Your task to perform on an android device: set an alarm Image 0: 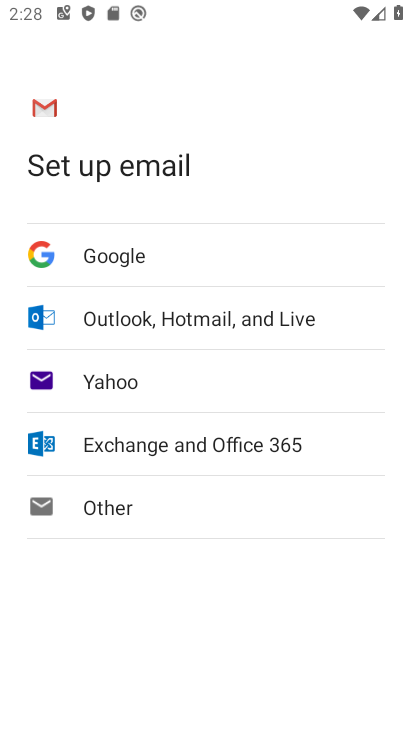
Step 0: press back button
Your task to perform on an android device: set an alarm Image 1: 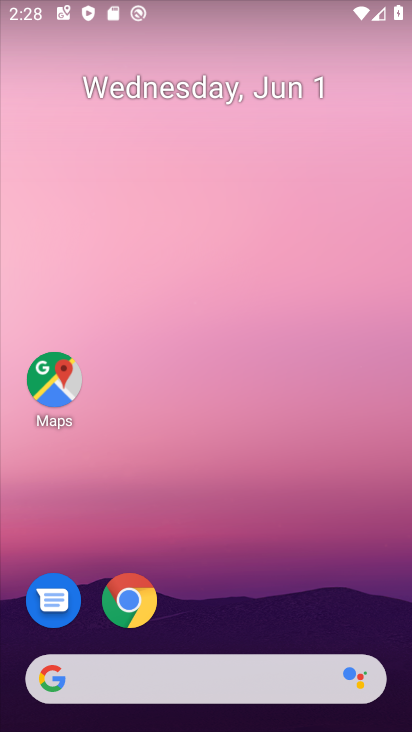
Step 1: drag from (248, 585) to (165, 24)
Your task to perform on an android device: set an alarm Image 2: 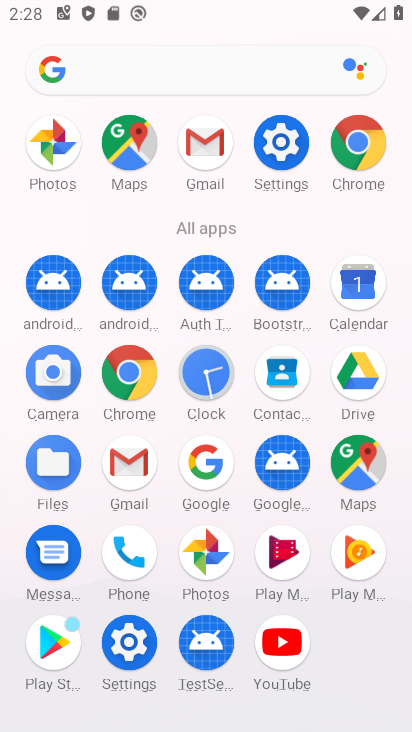
Step 2: drag from (3, 523) to (10, 162)
Your task to perform on an android device: set an alarm Image 3: 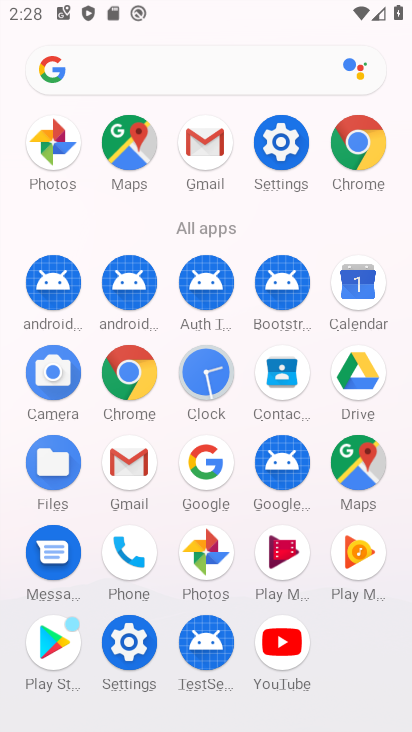
Step 3: click (201, 371)
Your task to perform on an android device: set an alarm Image 4: 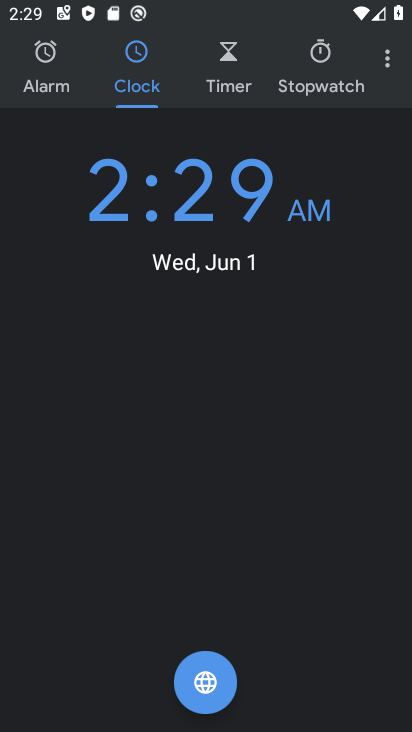
Step 4: click (45, 47)
Your task to perform on an android device: set an alarm Image 5: 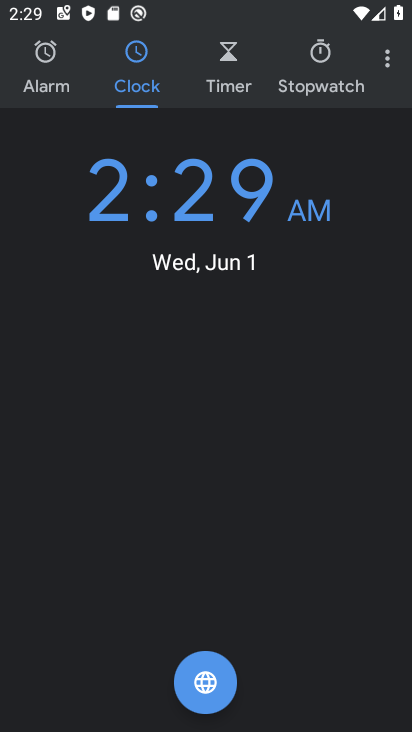
Step 5: click (51, 57)
Your task to perform on an android device: set an alarm Image 6: 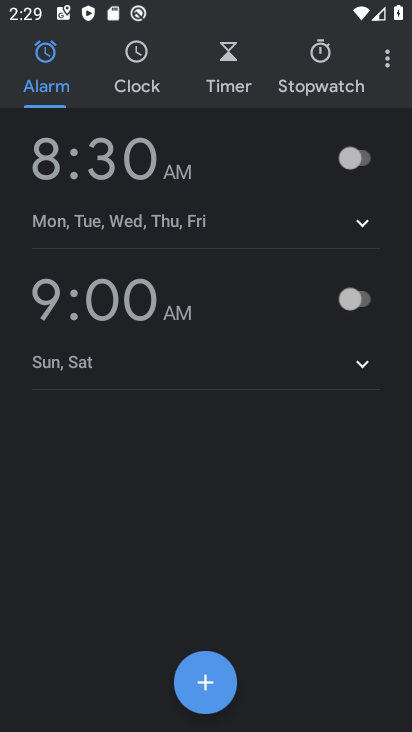
Step 6: click (199, 685)
Your task to perform on an android device: set an alarm Image 7: 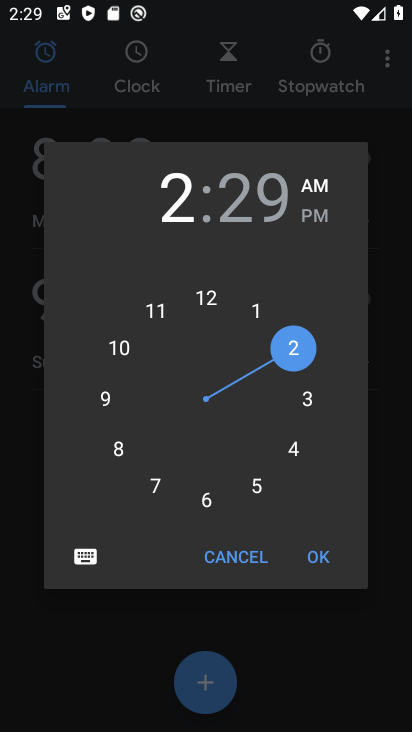
Step 7: click (316, 553)
Your task to perform on an android device: set an alarm Image 8: 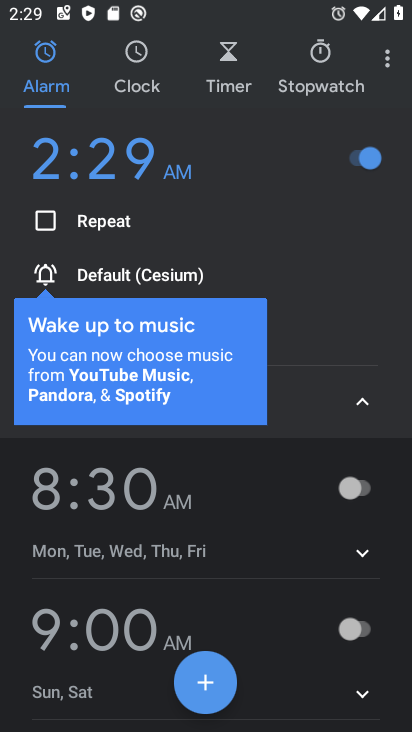
Step 8: task complete